Your task to perform on an android device: What is the news today? Image 0: 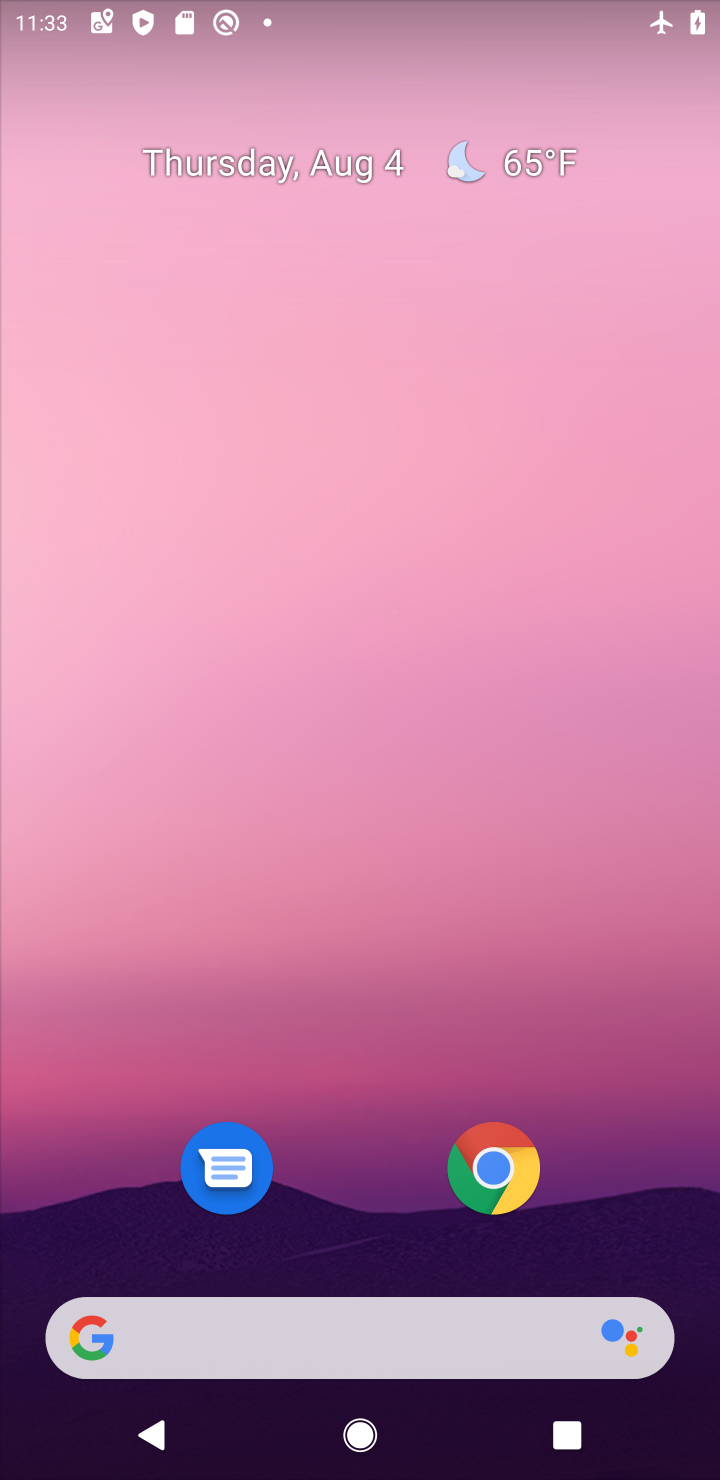
Step 0: drag from (649, 1200) to (329, 106)
Your task to perform on an android device: What is the news today? Image 1: 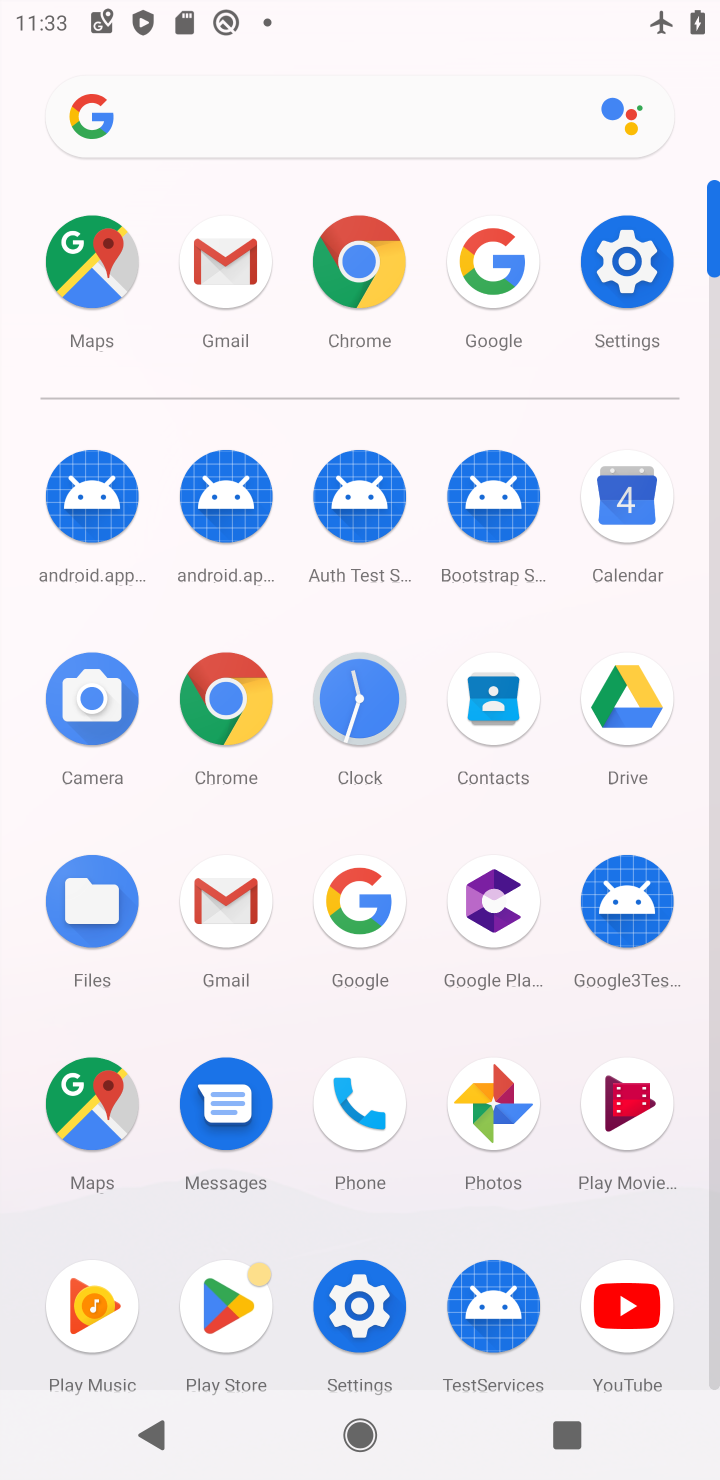
Step 1: click (356, 911)
Your task to perform on an android device: What is the news today? Image 2: 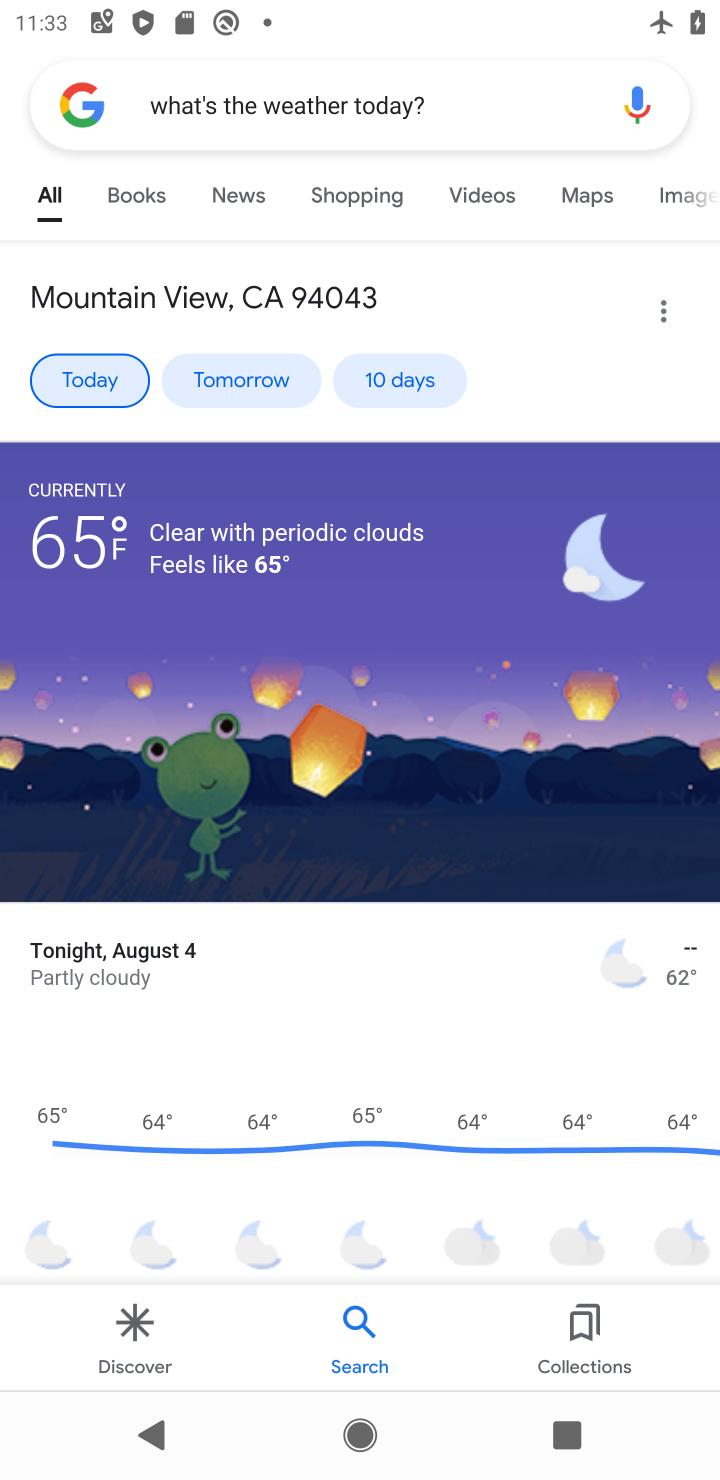
Step 2: press back button
Your task to perform on an android device: What is the news today? Image 3: 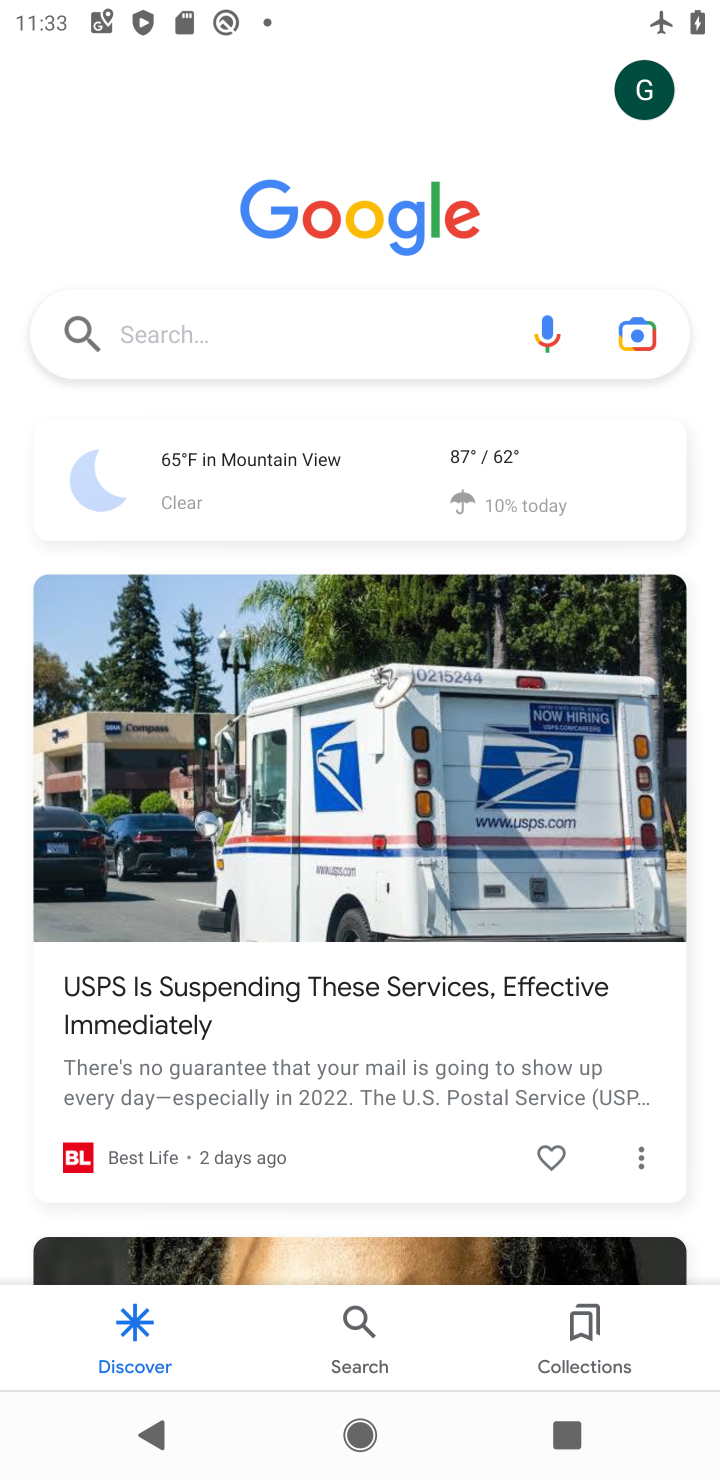
Step 3: click (195, 350)
Your task to perform on an android device: What is the news today? Image 4: 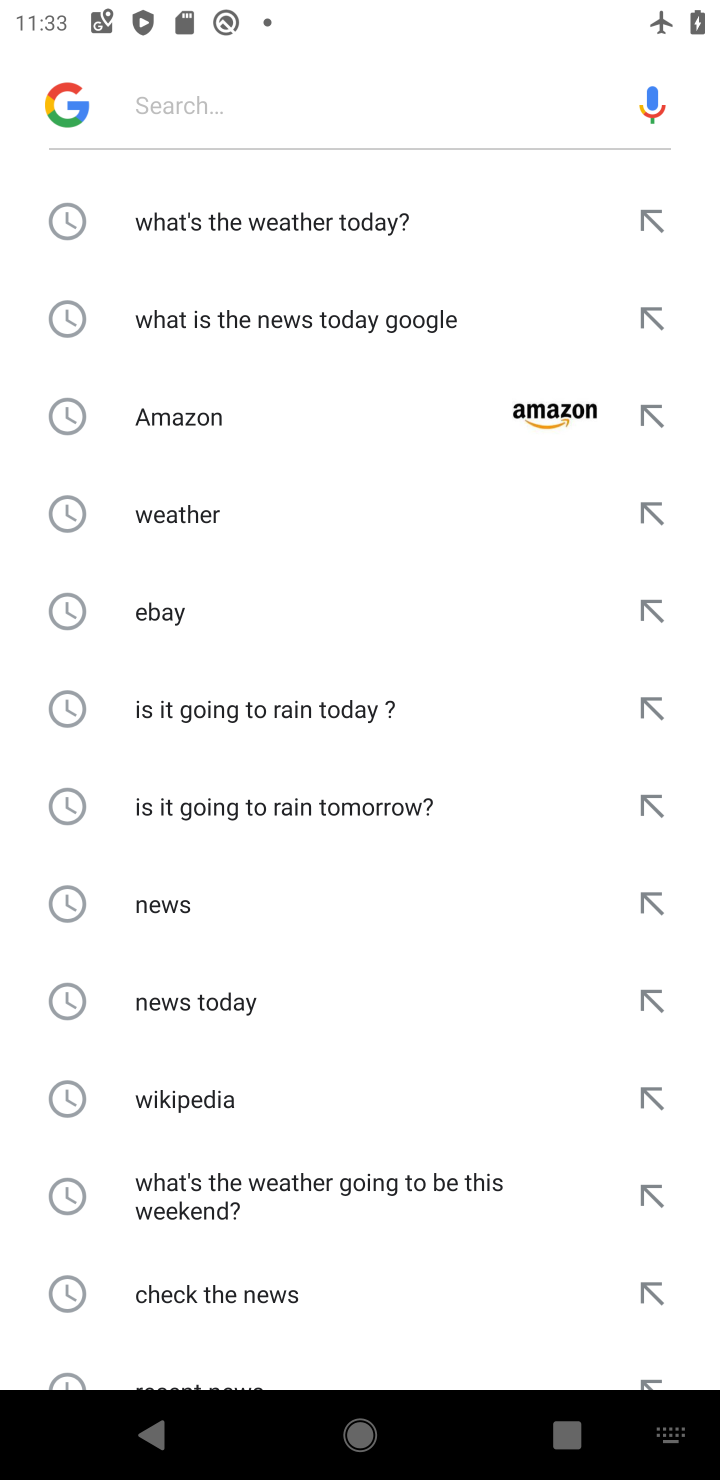
Step 4: click (254, 1028)
Your task to perform on an android device: What is the news today? Image 5: 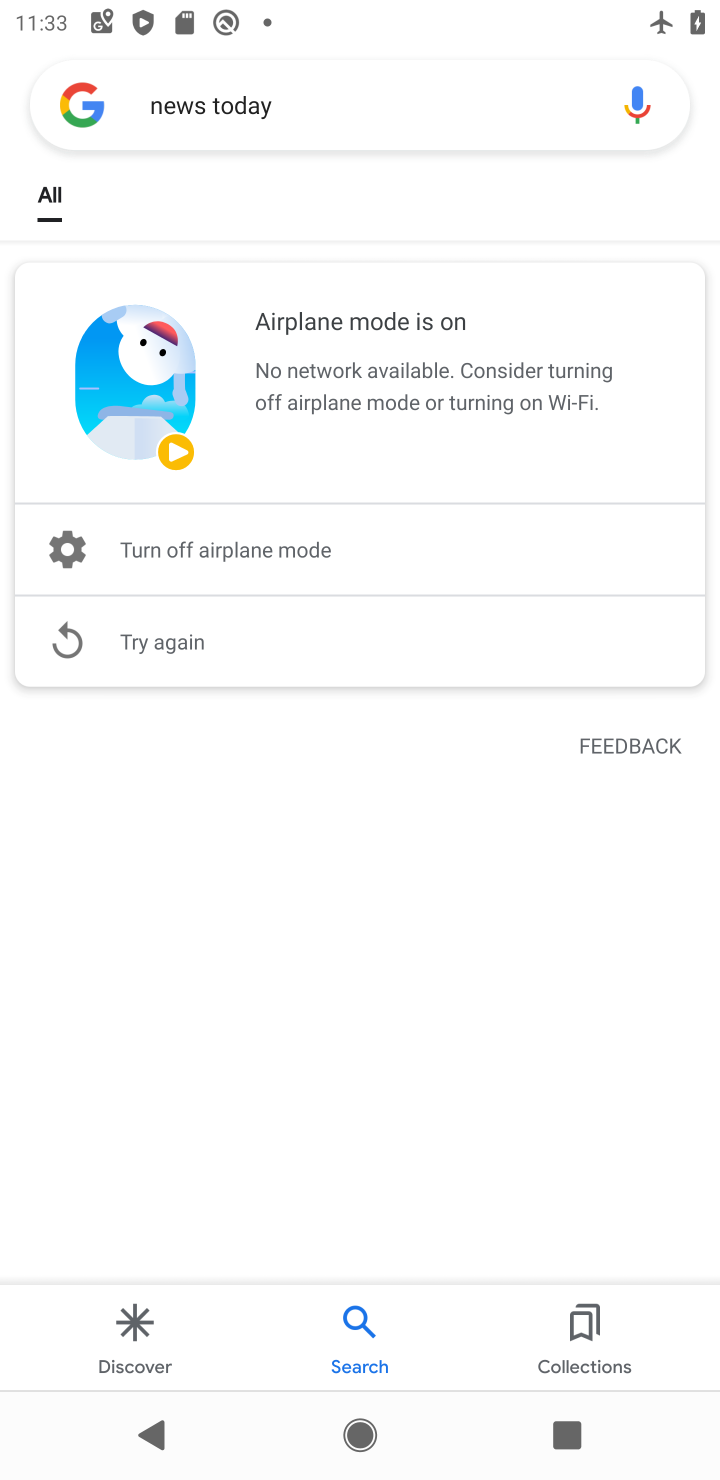
Step 5: task complete